Your task to perform on an android device: turn on javascript in the chrome app Image 0: 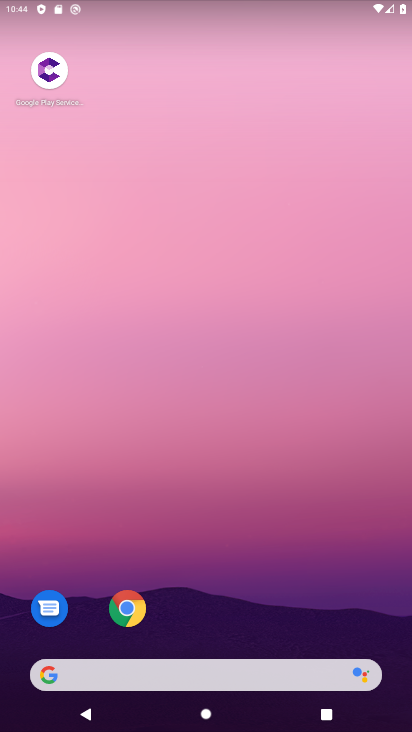
Step 0: drag from (235, 622) to (207, 13)
Your task to perform on an android device: turn on javascript in the chrome app Image 1: 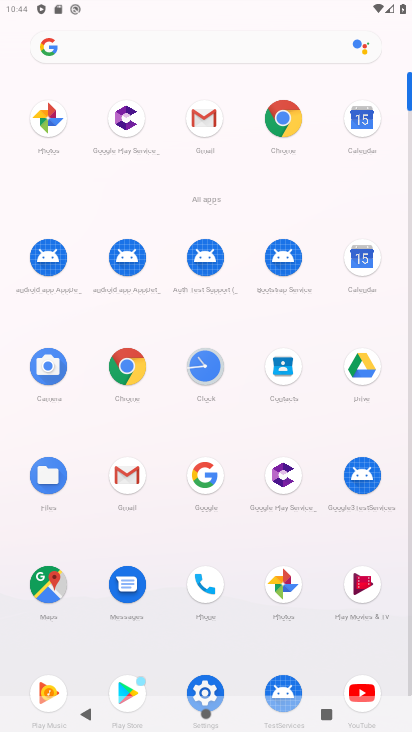
Step 1: click (359, 274)
Your task to perform on an android device: turn on javascript in the chrome app Image 2: 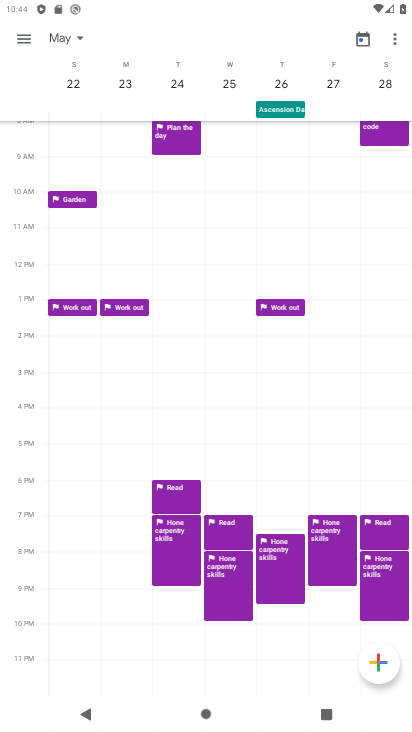
Step 2: click (27, 40)
Your task to perform on an android device: turn on javascript in the chrome app Image 3: 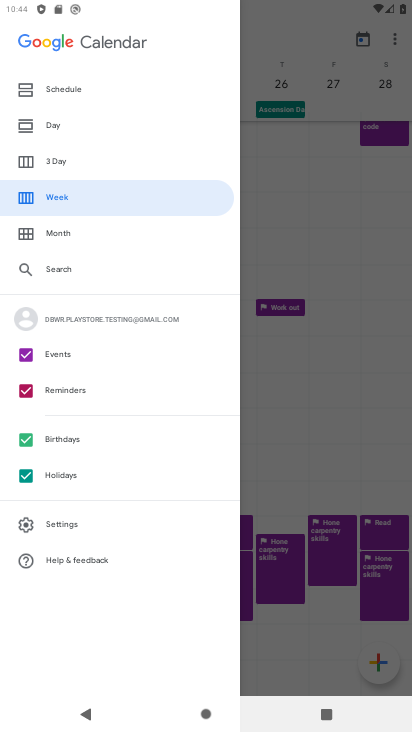
Step 3: click (58, 93)
Your task to perform on an android device: turn on javascript in the chrome app Image 4: 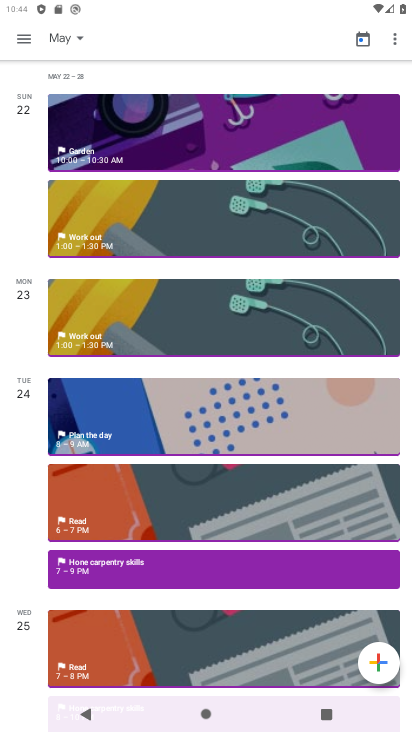
Step 4: click (58, 41)
Your task to perform on an android device: turn on javascript in the chrome app Image 5: 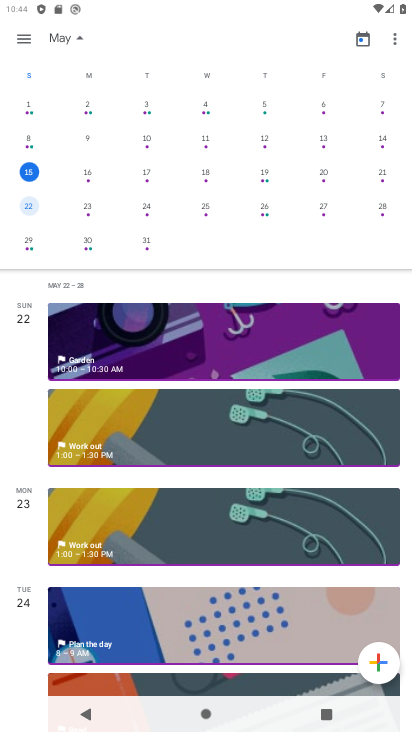
Step 5: click (35, 174)
Your task to perform on an android device: turn on javascript in the chrome app Image 6: 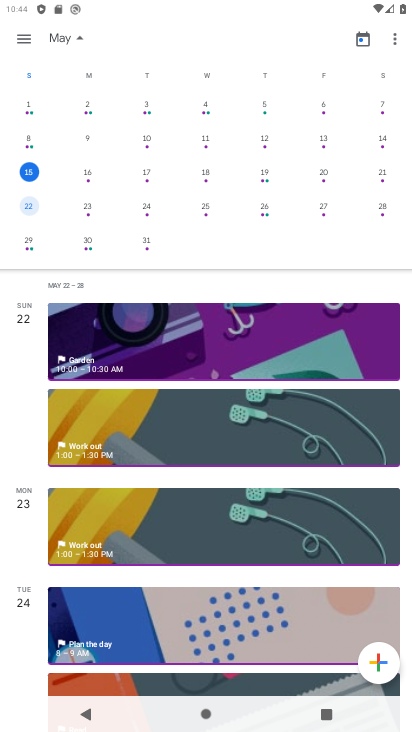
Step 6: click (29, 171)
Your task to perform on an android device: turn on javascript in the chrome app Image 7: 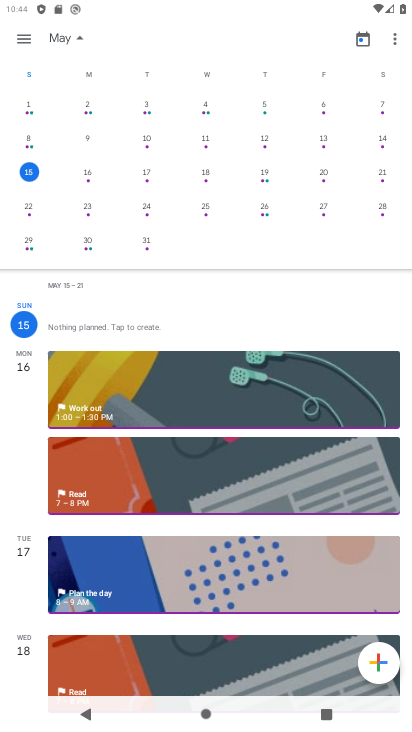
Step 7: task complete